Your task to perform on an android device: Open ESPN.com Image 0: 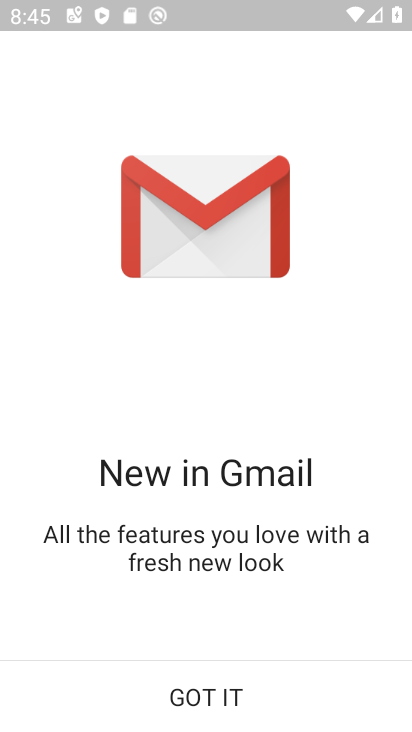
Step 0: press home button
Your task to perform on an android device: Open ESPN.com Image 1: 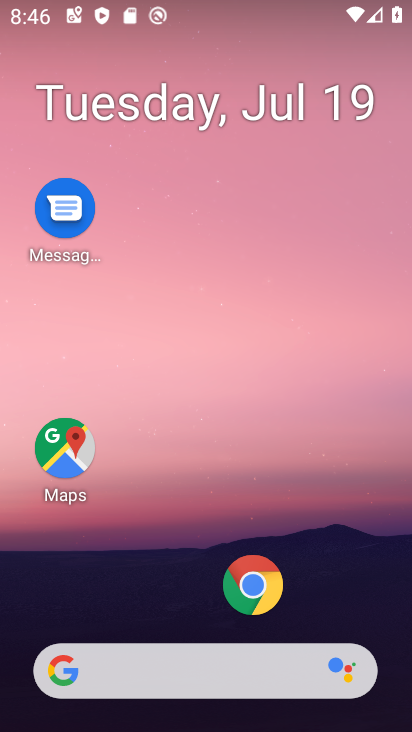
Step 1: click (255, 576)
Your task to perform on an android device: Open ESPN.com Image 2: 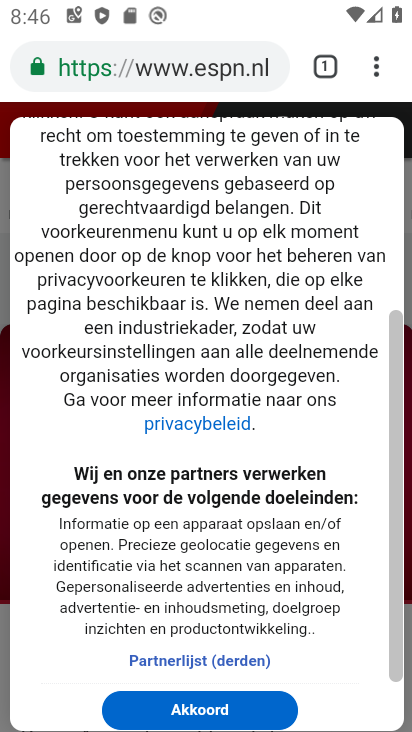
Step 2: task complete